Your task to perform on an android device: Go to display settings Image 0: 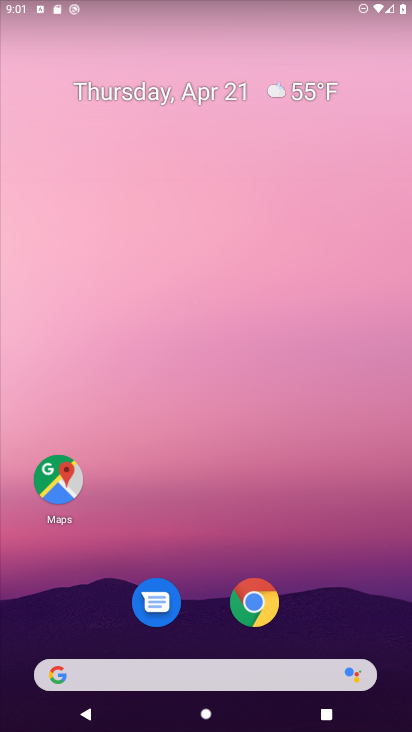
Step 0: drag from (206, 625) to (234, 152)
Your task to perform on an android device: Go to display settings Image 1: 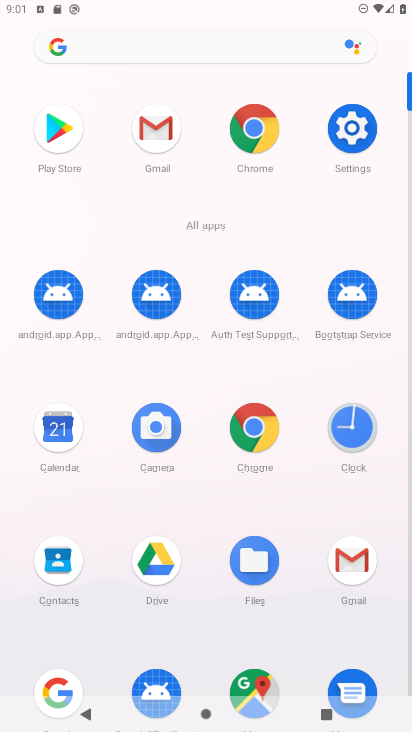
Step 1: click (351, 133)
Your task to perform on an android device: Go to display settings Image 2: 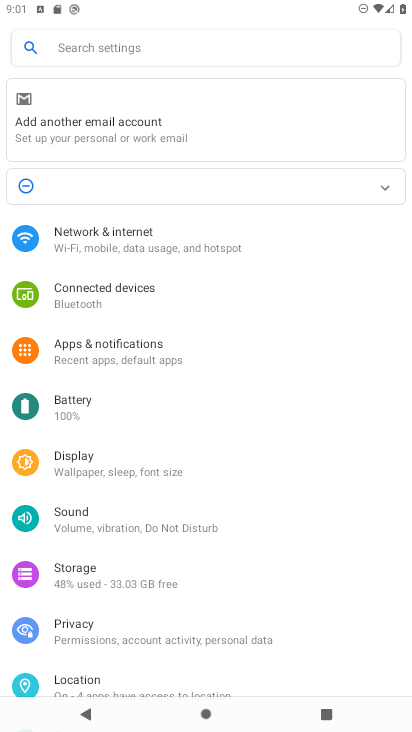
Step 2: click (124, 468)
Your task to perform on an android device: Go to display settings Image 3: 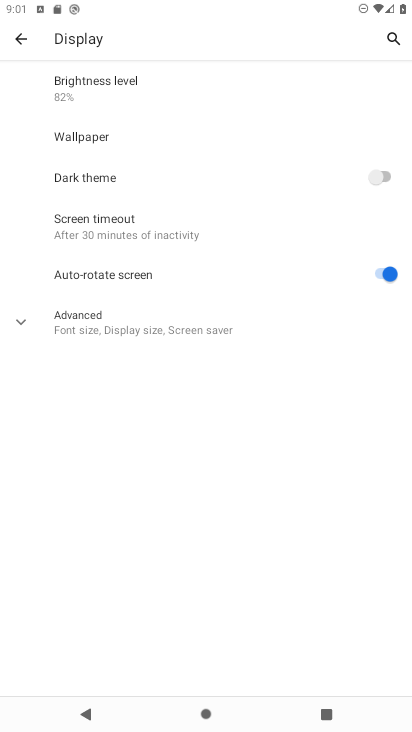
Step 3: task complete